Your task to perform on an android device: change text size in settings app Image 0: 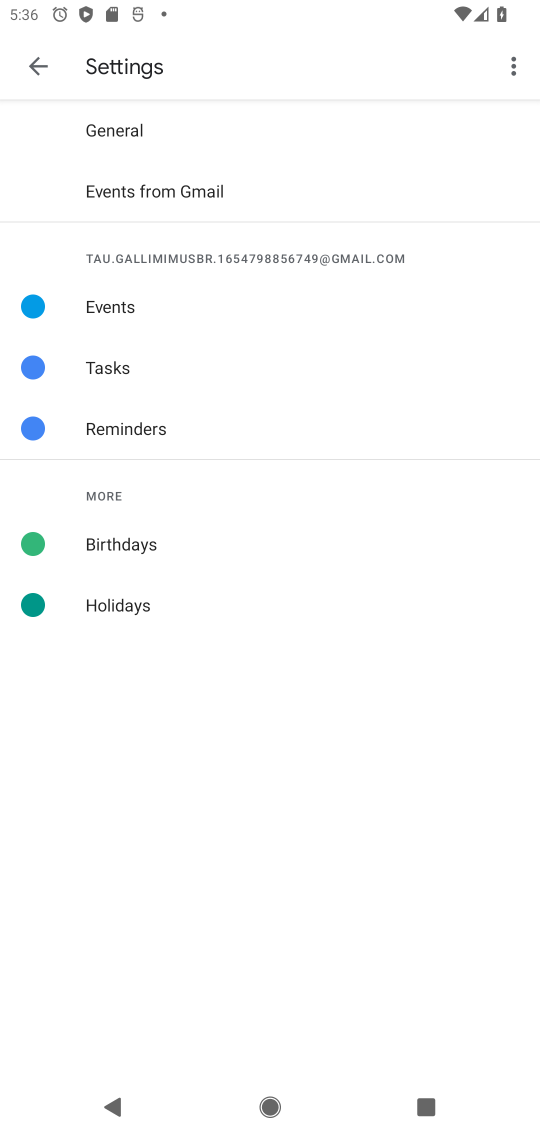
Step 0: press home button
Your task to perform on an android device: change text size in settings app Image 1: 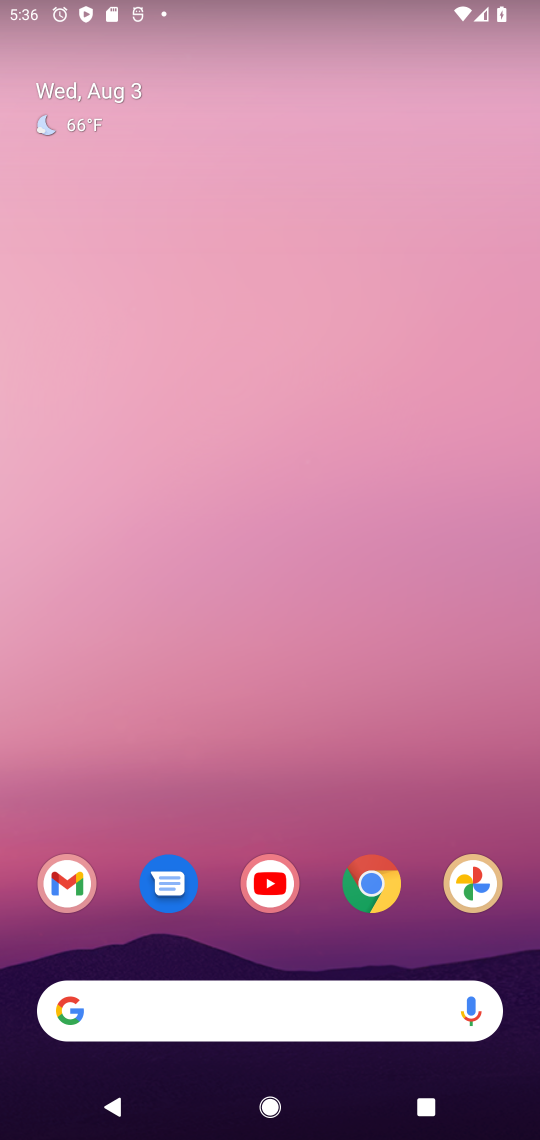
Step 1: drag from (208, 959) to (292, 294)
Your task to perform on an android device: change text size in settings app Image 2: 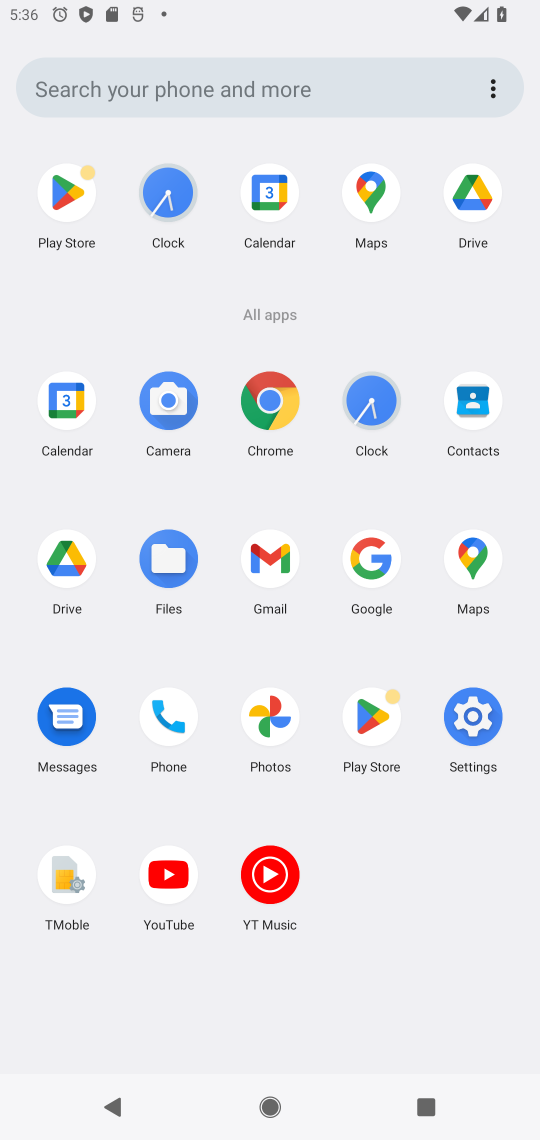
Step 2: click (493, 711)
Your task to perform on an android device: change text size in settings app Image 3: 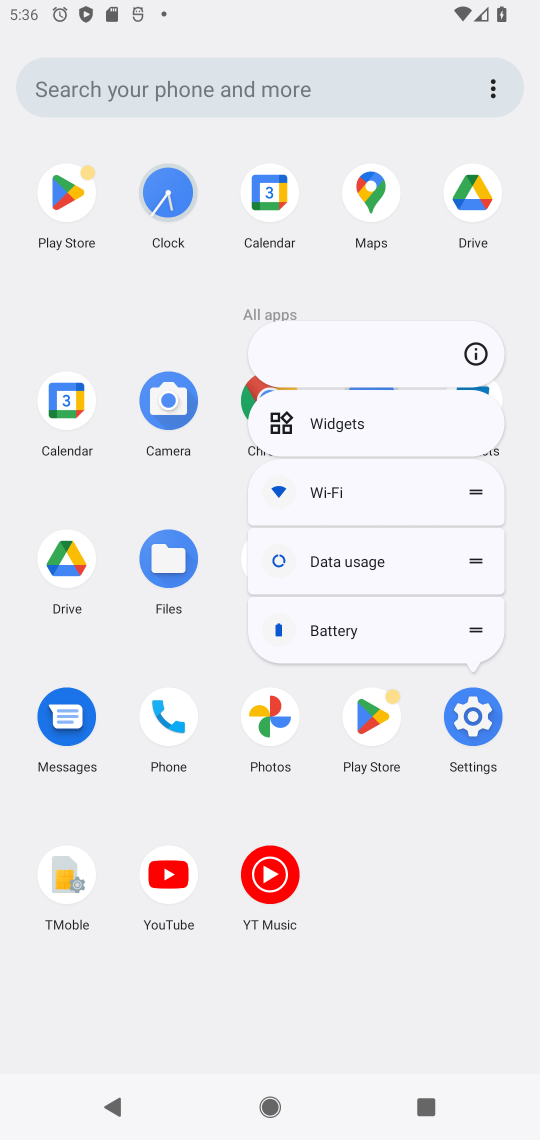
Step 3: click (483, 719)
Your task to perform on an android device: change text size in settings app Image 4: 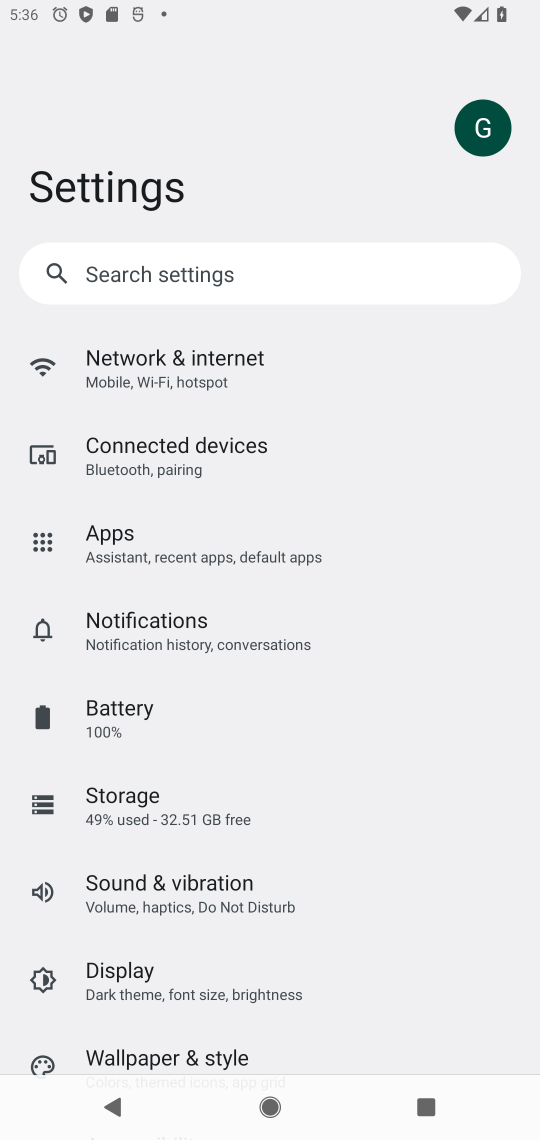
Step 4: drag from (146, 1031) to (237, 511)
Your task to perform on an android device: change text size in settings app Image 5: 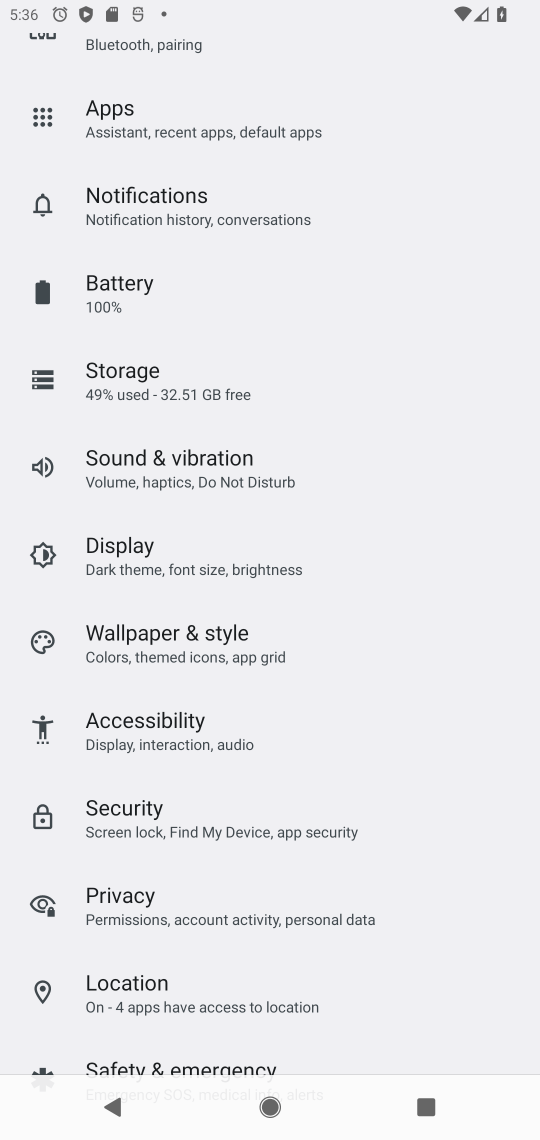
Step 5: drag from (95, 1065) to (159, 572)
Your task to perform on an android device: change text size in settings app Image 6: 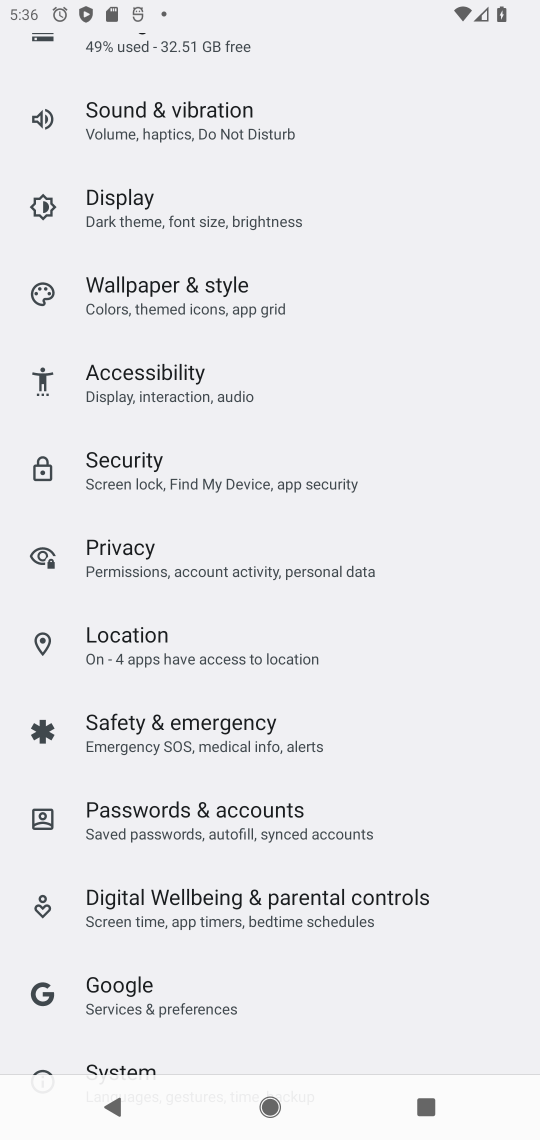
Step 6: drag from (147, 1047) to (181, 546)
Your task to perform on an android device: change text size in settings app Image 7: 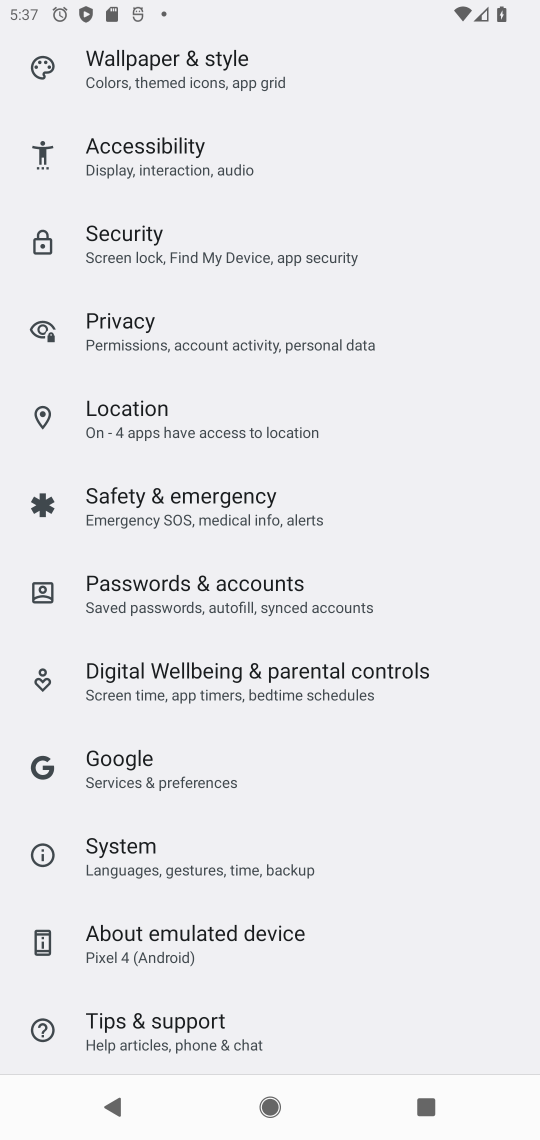
Step 7: click (115, 851)
Your task to perform on an android device: change text size in settings app Image 8: 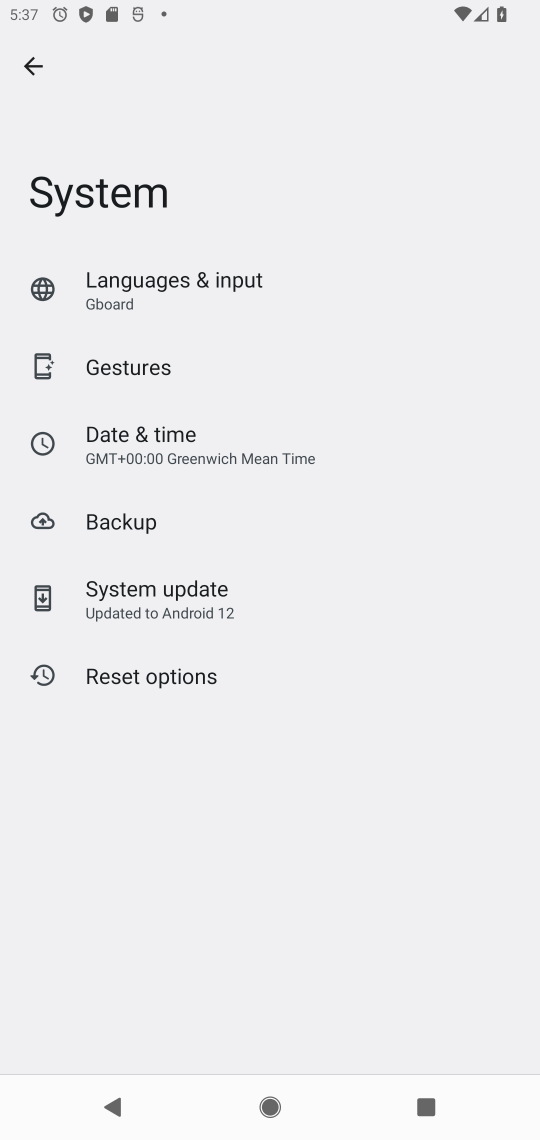
Step 8: click (25, 56)
Your task to perform on an android device: change text size in settings app Image 9: 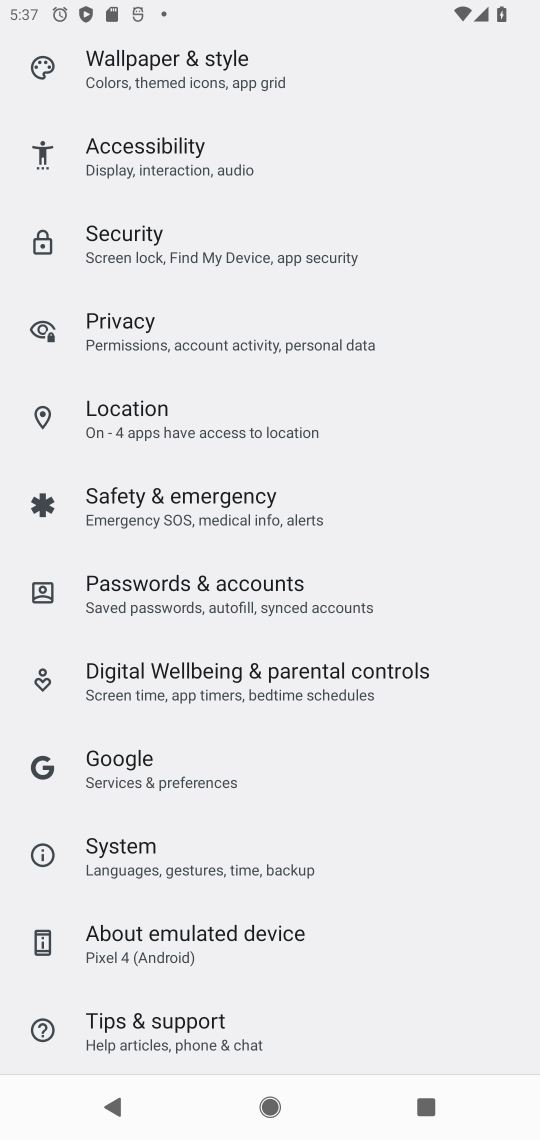
Step 9: drag from (216, 342) to (216, 921)
Your task to perform on an android device: change text size in settings app Image 10: 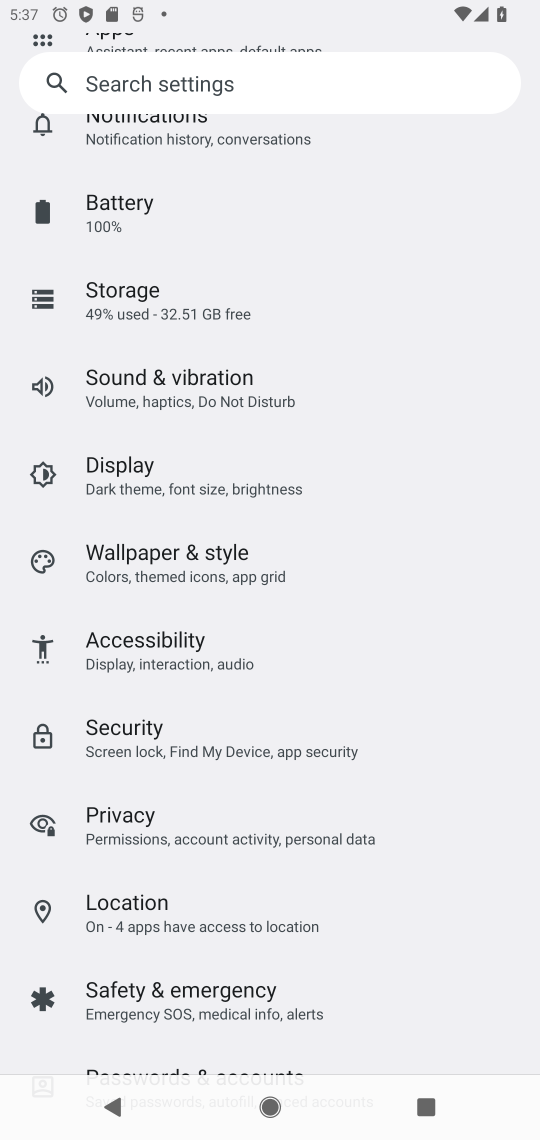
Step 10: click (156, 657)
Your task to perform on an android device: change text size in settings app Image 11: 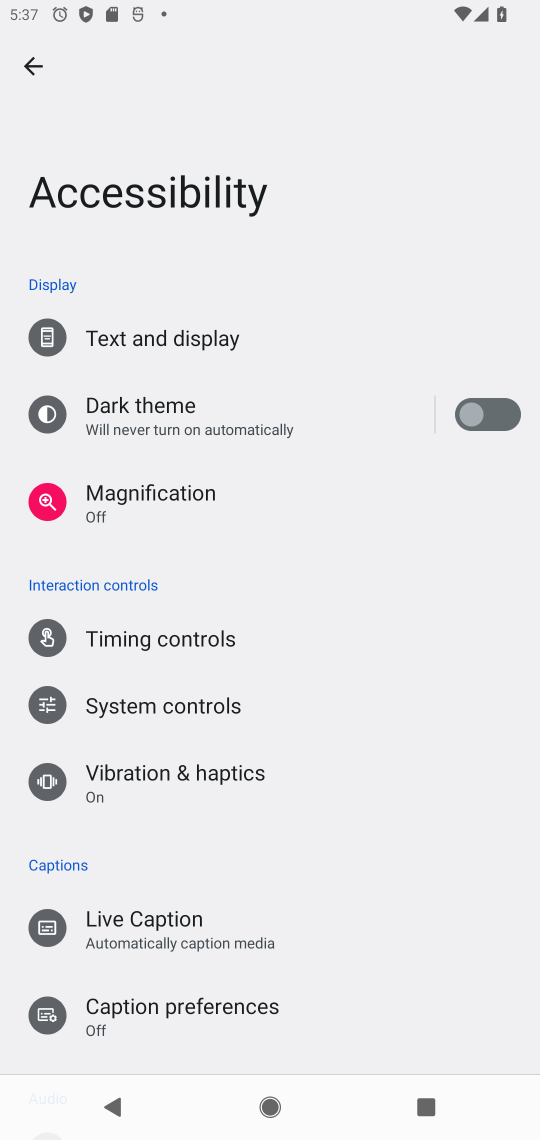
Step 11: click (158, 345)
Your task to perform on an android device: change text size in settings app Image 12: 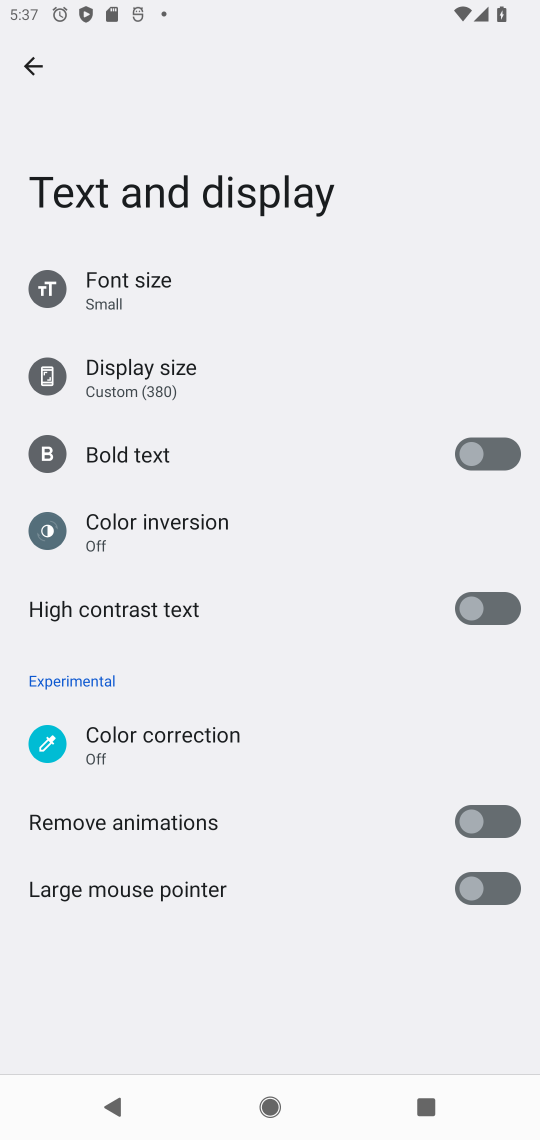
Step 12: click (131, 269)
Your task to perform on an android device: change text size in settings app Image 13: 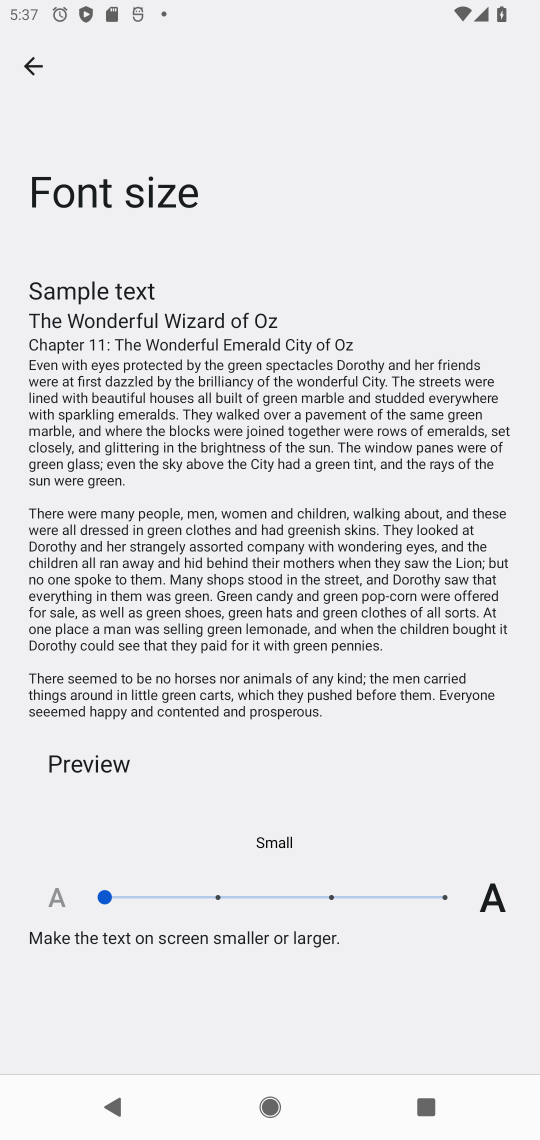
Step 13: click (202, 888)
Your task to perform on an android device: change text size in settings app Image 14: 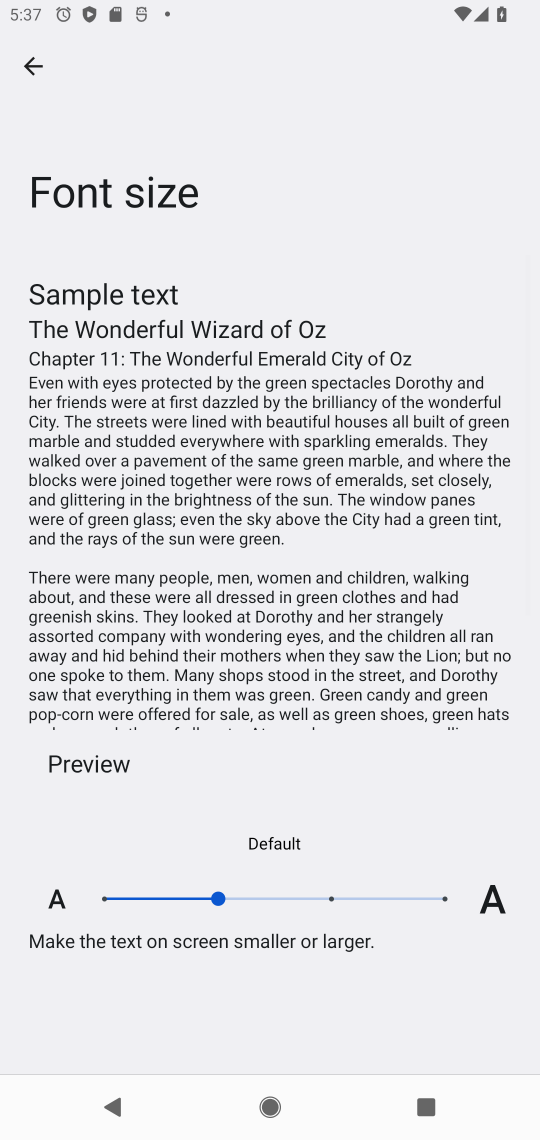
Step 14: task complete